Your task to perform on an android device: Show me some nice wallpapers for my laptop Image 0: 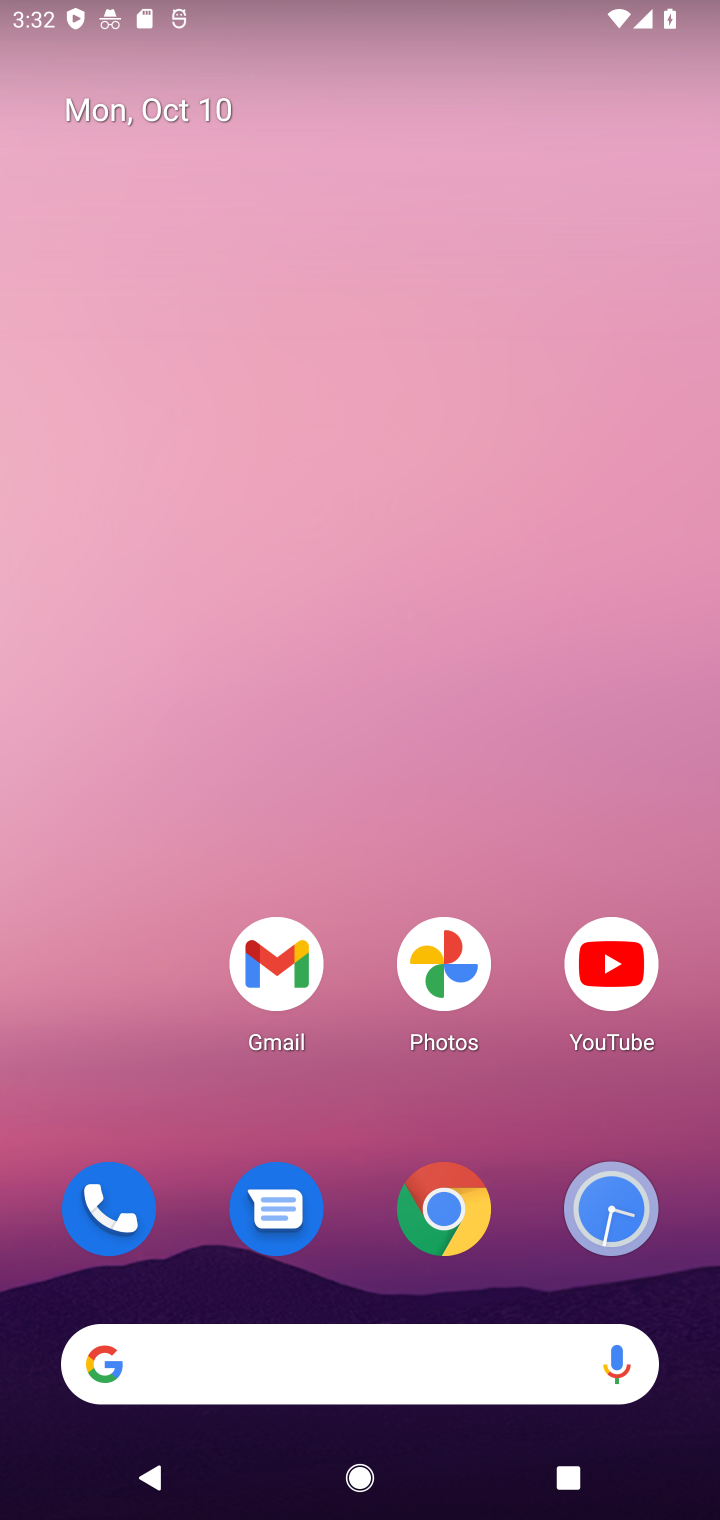
Step 0: click (466, 1227)
Your task to perform on an android device: Show me some nice wallpapers for my laptop Image 1: 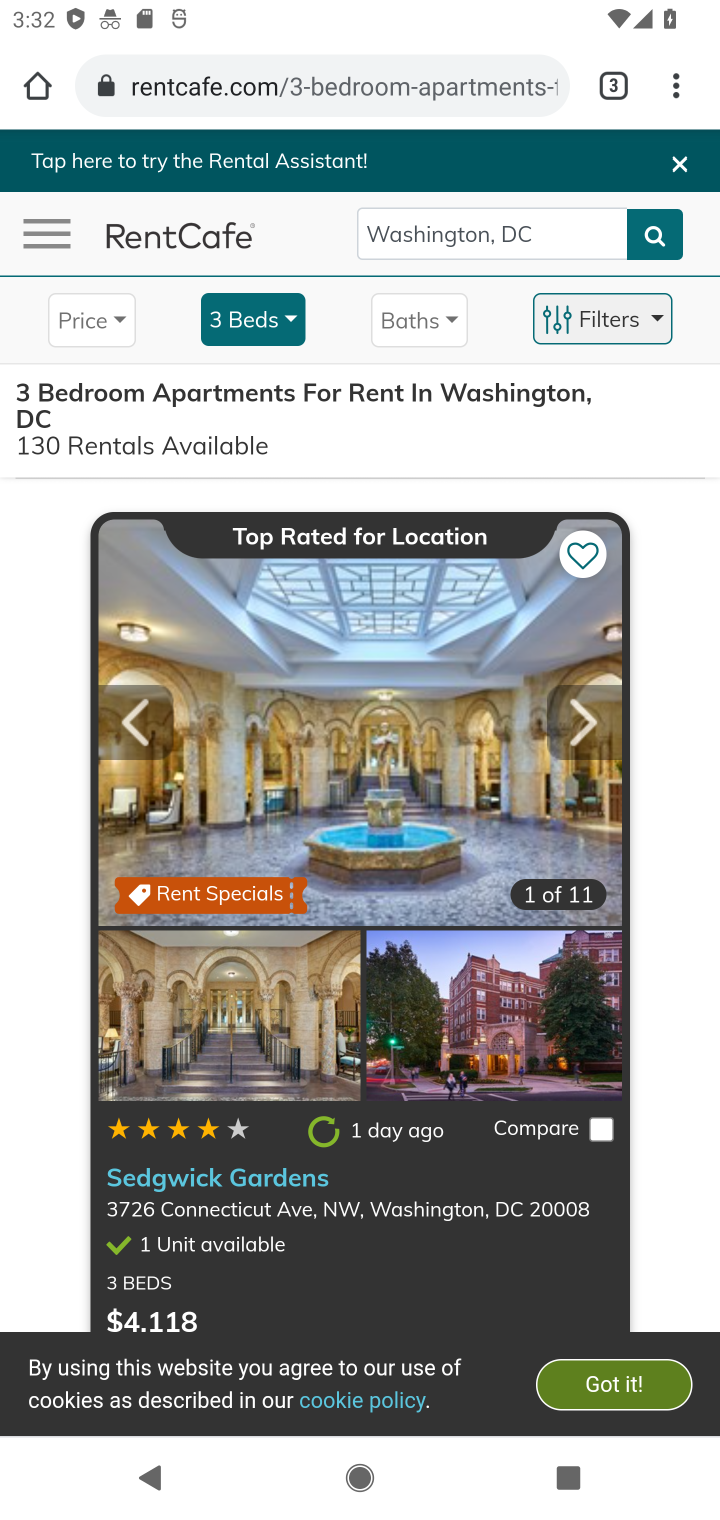
Step 1: click (410, 104)
Your task to perform on an android device: Show me some nice wallpapers for my laptop Image 2: 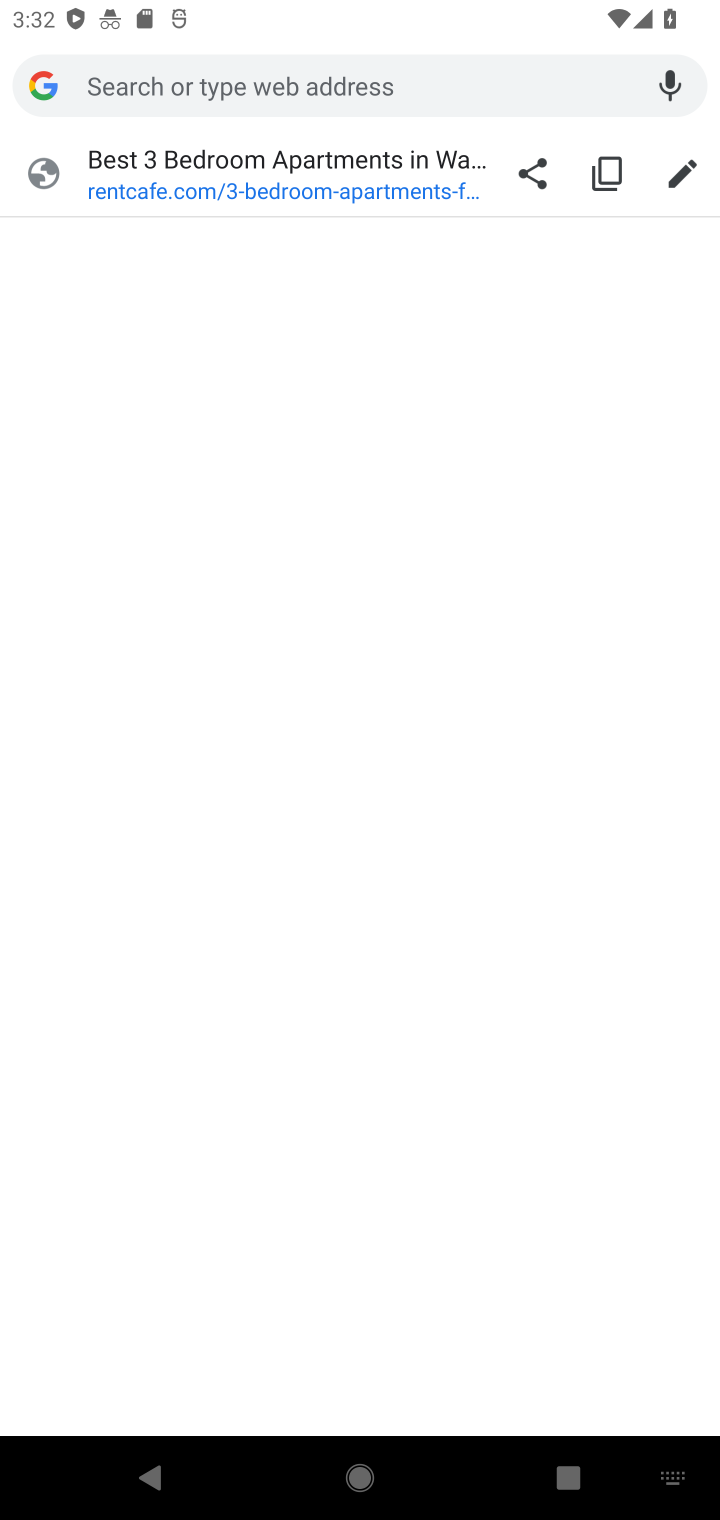
Step 2: type "Show me some nice wallpapers for my laptop"
Your task to perform on an android device: Show me some nice wallpapers for my laptop Image 3: 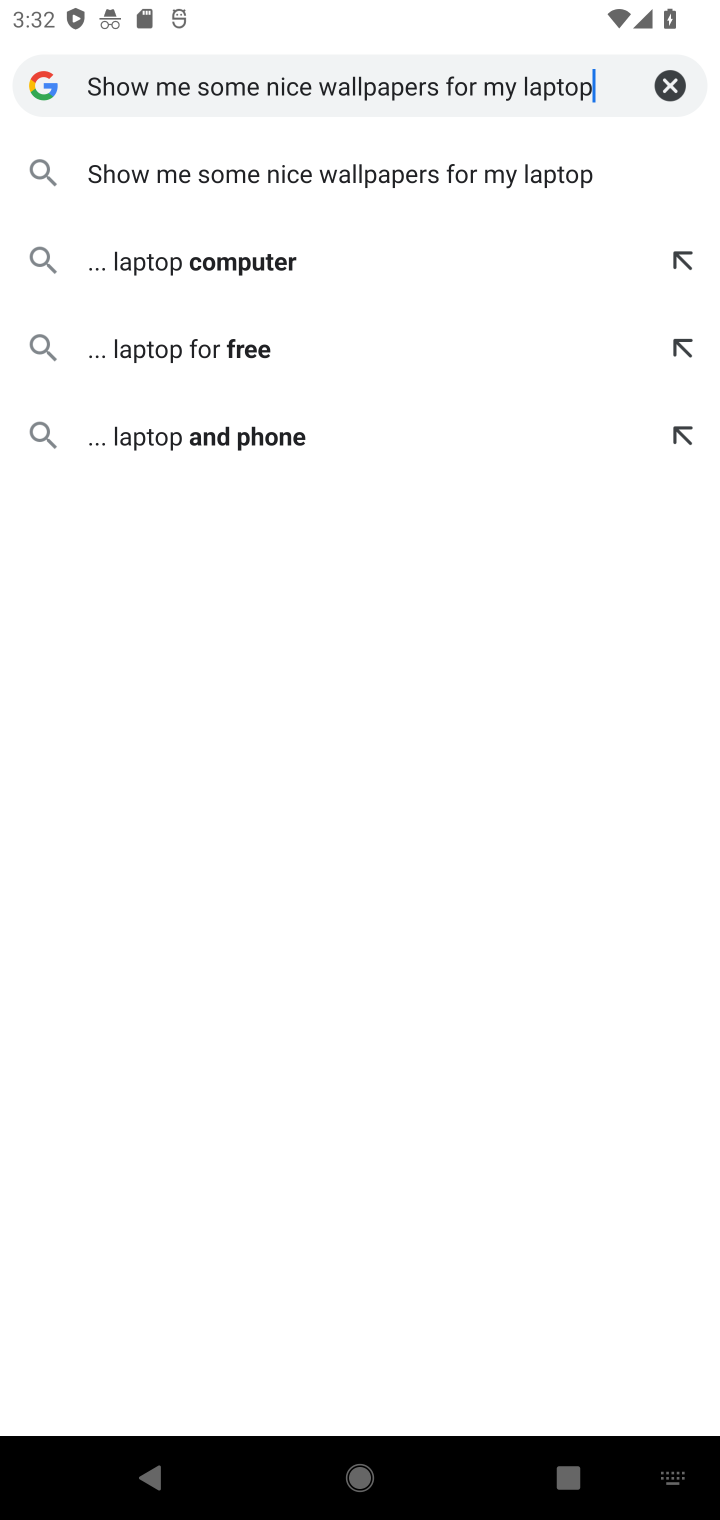
Step 3: press enter
Your task to perform on an android device: Show me some nice wallpapers for my laptop Image 4: 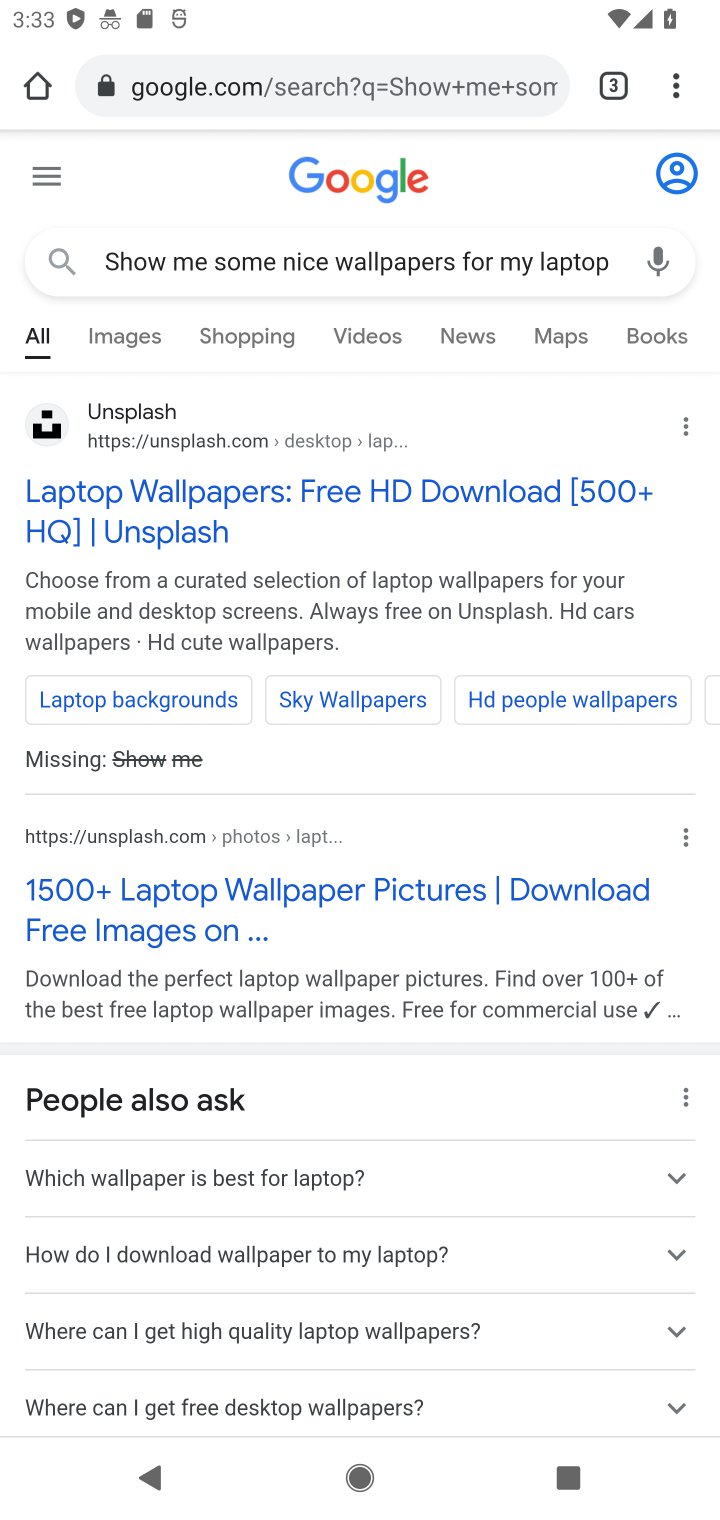
Step 4: click (229, 538)
Your task to perform on an android device: Show me some nice wallpapers for my laptop Image 5: 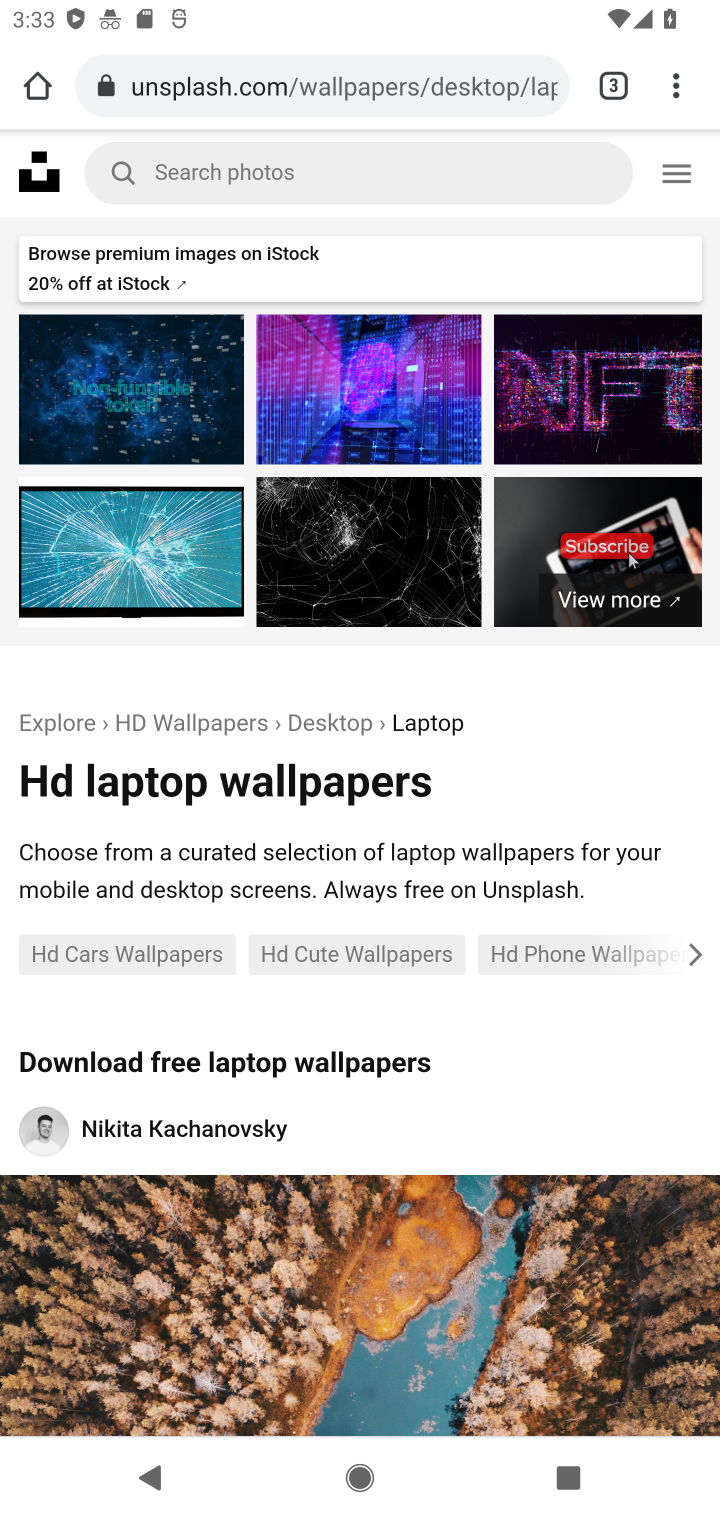
Step 5: task complete